Your task to perform on an android device: read, delete, or share a saved page in the chrome app Image 0: 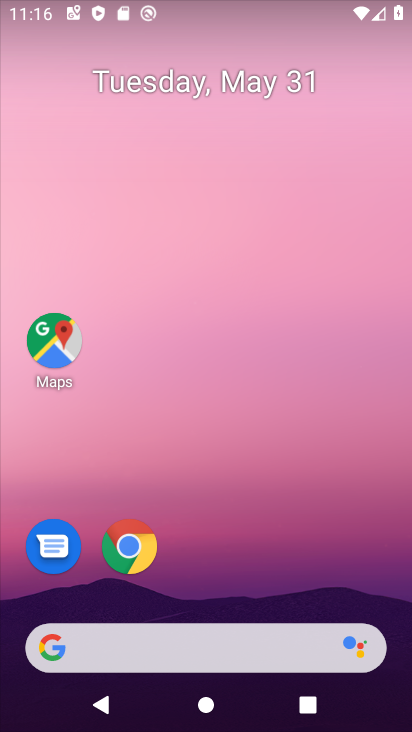
Step 0: drag from (287, 599) to (237, 235)
Your task to perform on an android device: read, delete, or share a saved page in the chrome app Image 1: 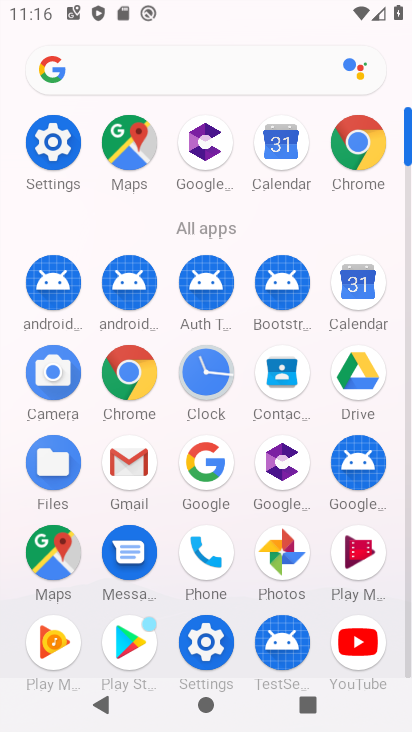
Step 1: click (350, 137)
Your task to perform on an android device: read, delete, or share a saved page in the chrome app Image 2: 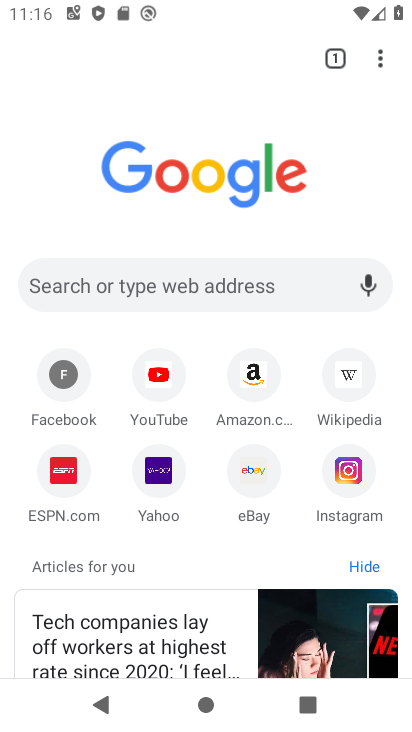
Step 2: click (382, 49)
Your task to perform on an android device: read, delete, or share a saved page in the chrome app Image 3: 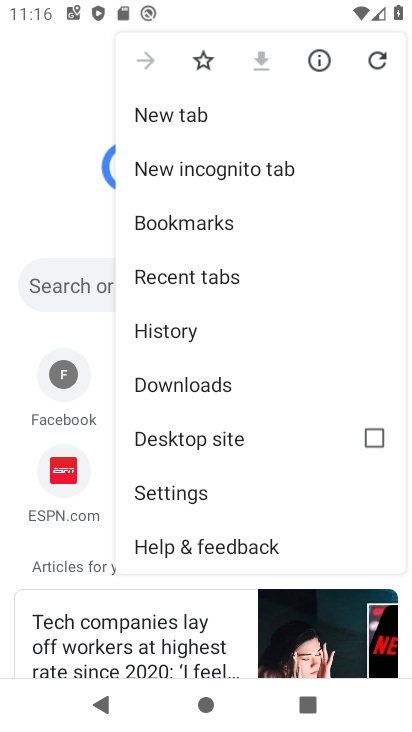
Step 3: click (211, 380)
Your task to perform on an android device: read, delete, or share a saved page in the chrome app Image 4: 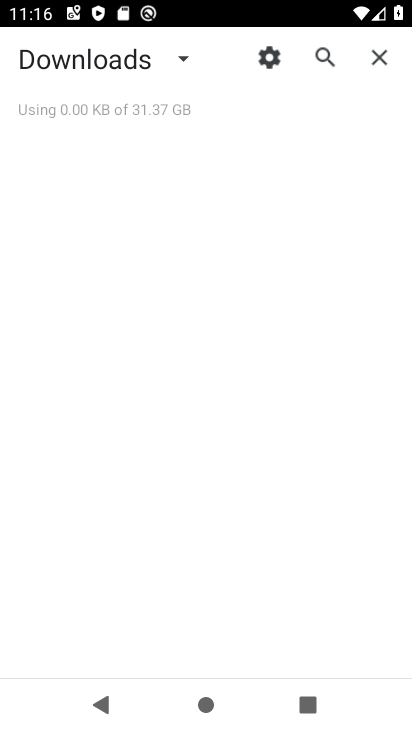
Step 4: click (165, 72)
Your task to perform on an android device: read, delete, or share a saved page in the chrome app Image 5: 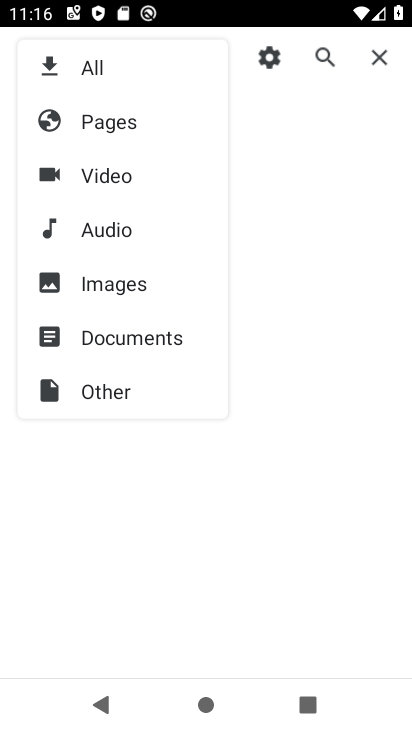
Step 5: click (149, 118)
Your task to perform on an android device: read, delete, or share a saved page in the chrome app Image 6: 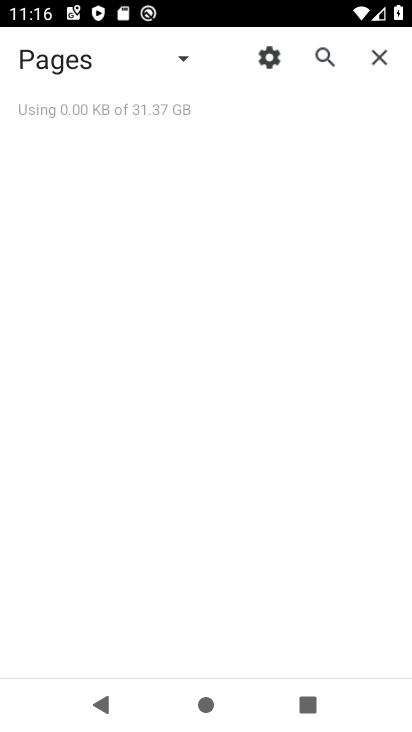
Step 6: task complete